Your task to perform on an android device: Open Google Maps and go to "Timeline" Image 0: 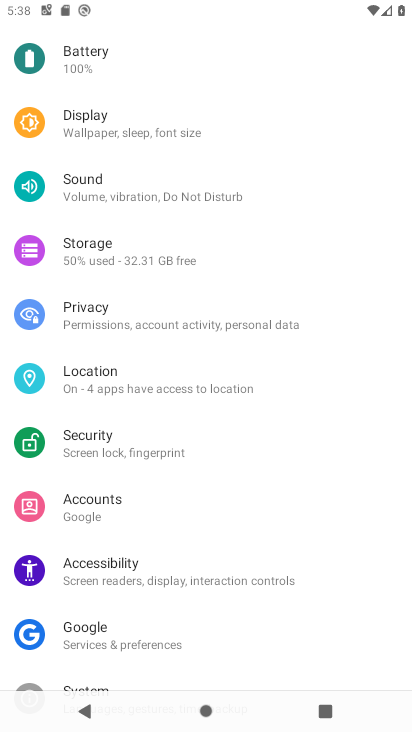
Step 0: press home button
Your task to perform on an android device: Open Google Maps and go to "Timeline" Image 1: 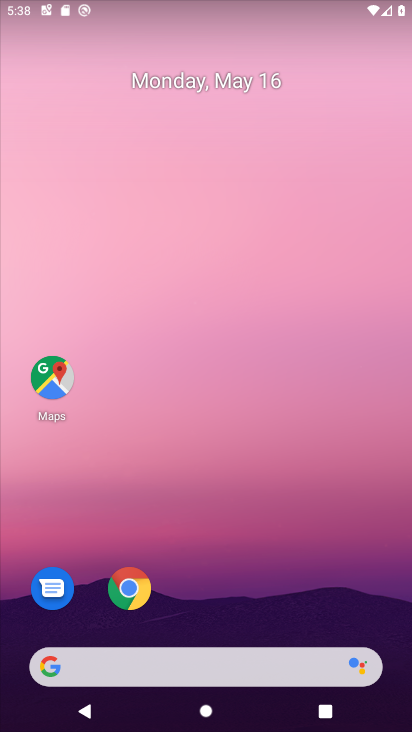
Step 1: click (63, 365)
Your task to perform on an android device: Open Google Maps and go to "Timeline" Image 2: 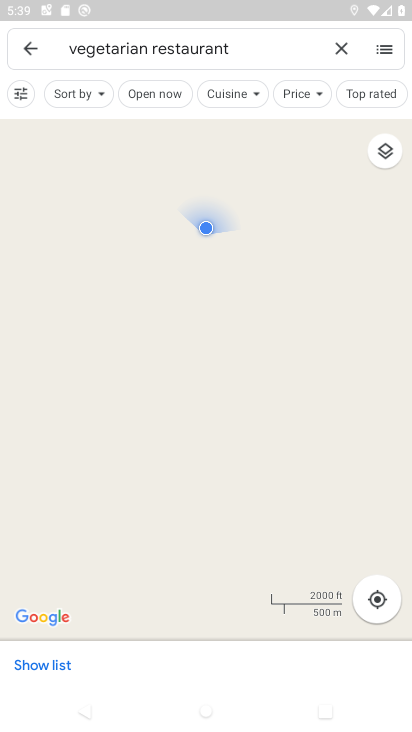
Step 2: click (34, 43)
Your task to perform on an android device: Open Google Maps and go to "Timeline" Image 3: 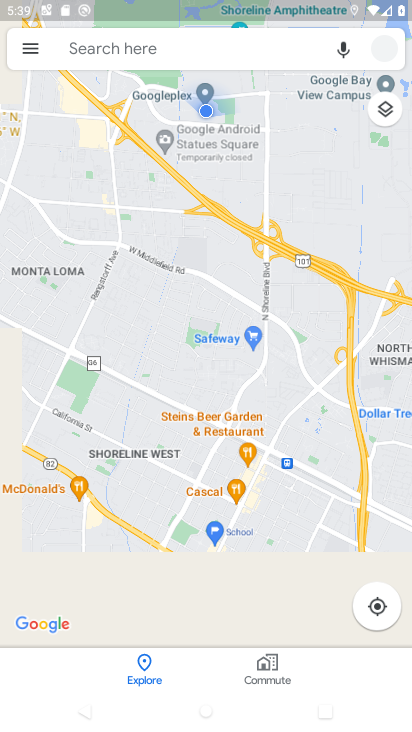
Step 3: click (37, 57)
Your task to perform on an android device: Open Google Maps and go to "Timeline" Image 4: 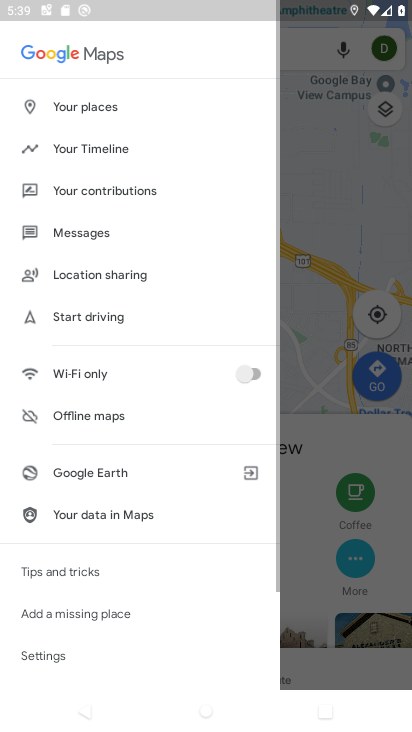
Step 4: click (32, 48)
Your task to perform on an android device: Open Google Maps and go to "Timeline" Image 5: 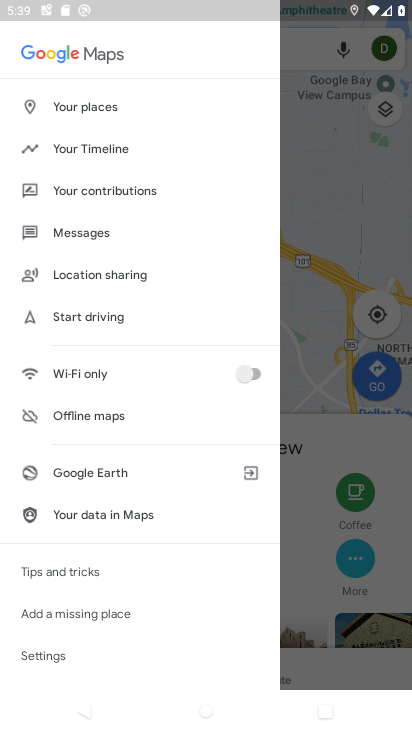
Step 5: click (92, 140)
Your task to perform on an android device: Open Google Maps and go to "Timeline" Image 6: 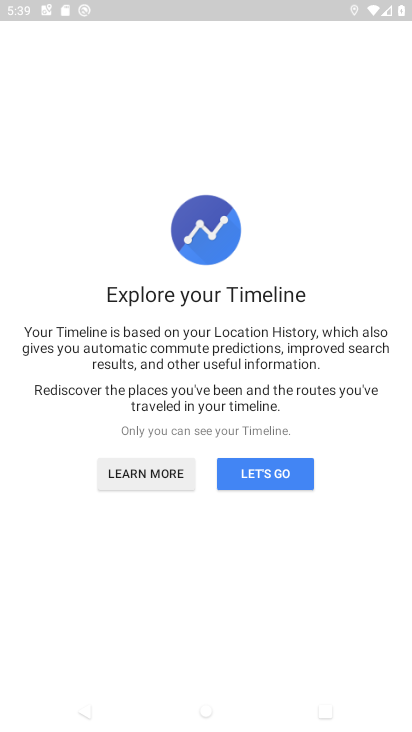
Step 6: click (249, 474)
Your task to perform on an android device: Open Google Maps and go to "Timeline" Image 7: 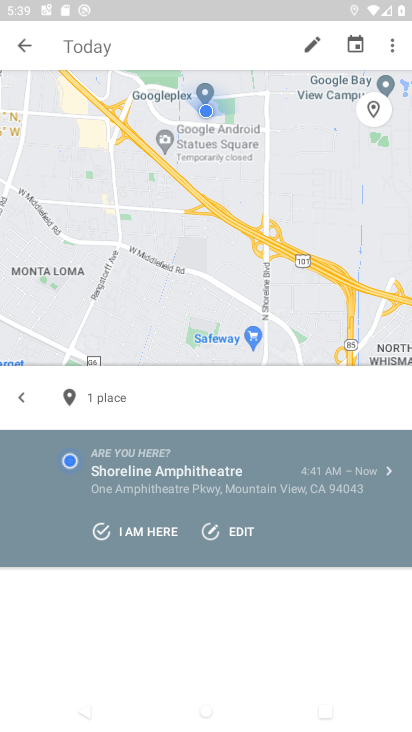
Step 7: task complete